Your task to perform on an android device: turn off picture-in-picture Image 0: 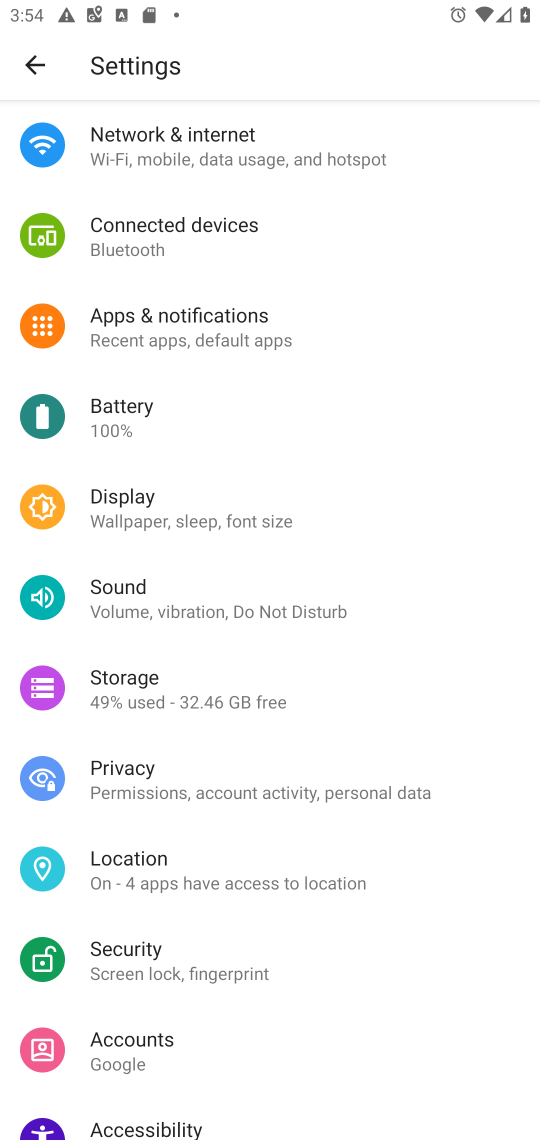
Step 0: click (231, 326)
Your task to perform on an android device: turn off picture-in-picture Image 1: 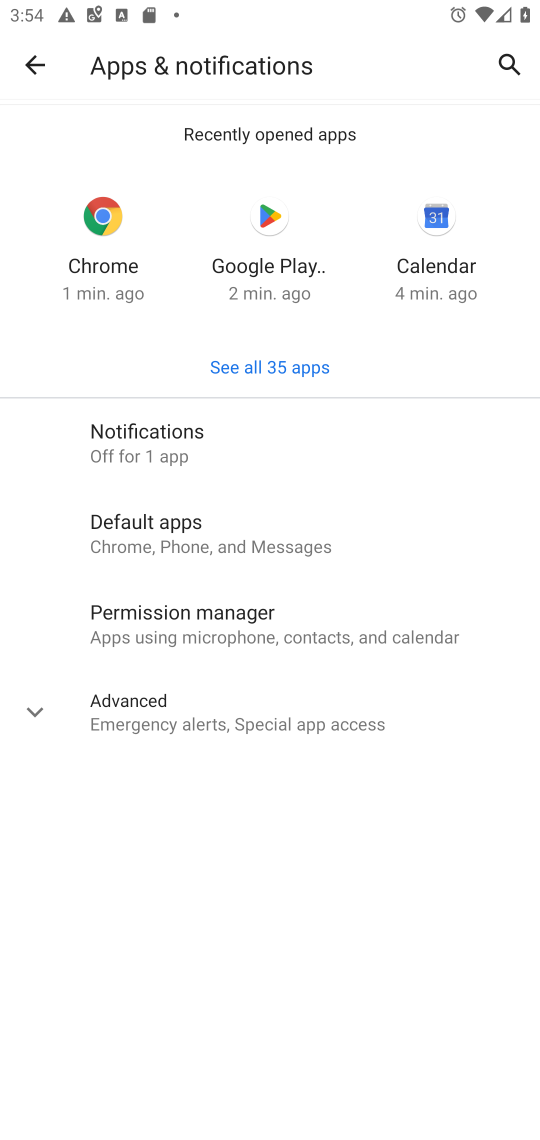
Step 1: click (142, 720)
Your task to perform on an android device: turn off picture-in-picture Image 2: 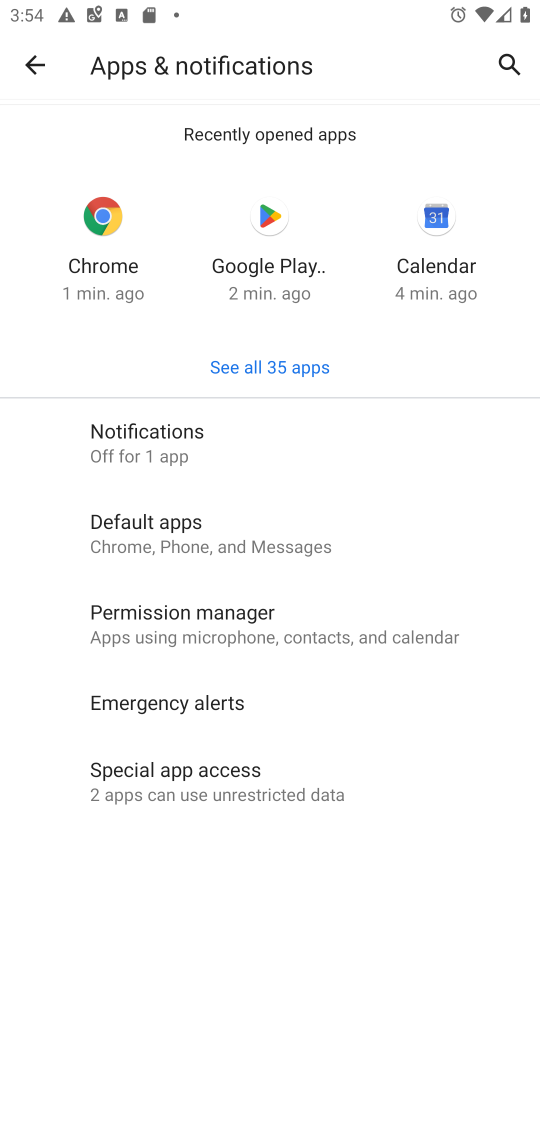
Step 2: click (205, 777)
Your task to perform on an android device: turn off picture-in-picture Image 3: 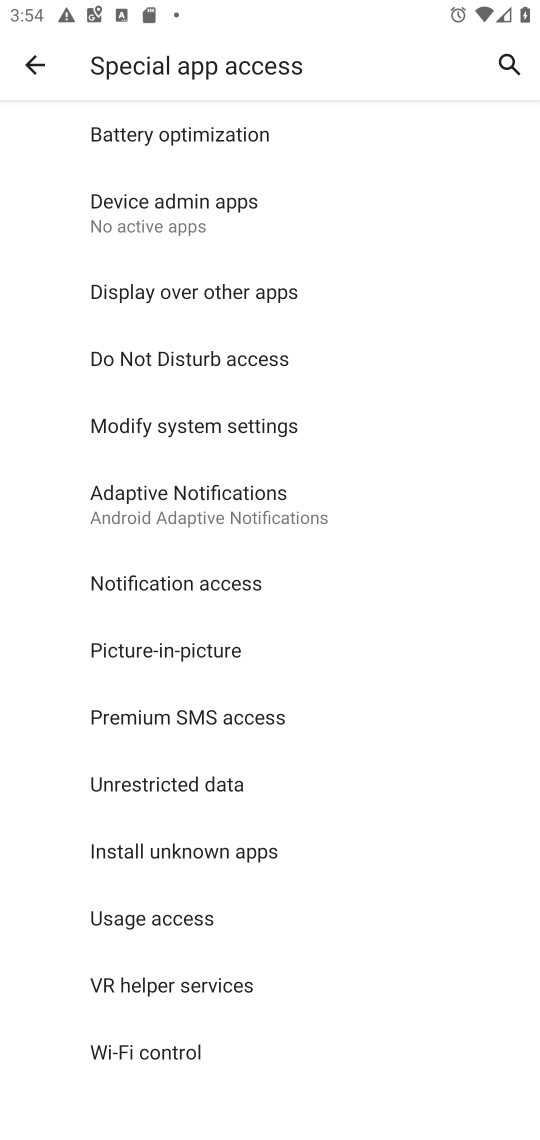
Step 3: click (152, 649)
Your task to perform on an android device: turn off picture-in-picture Image 4: 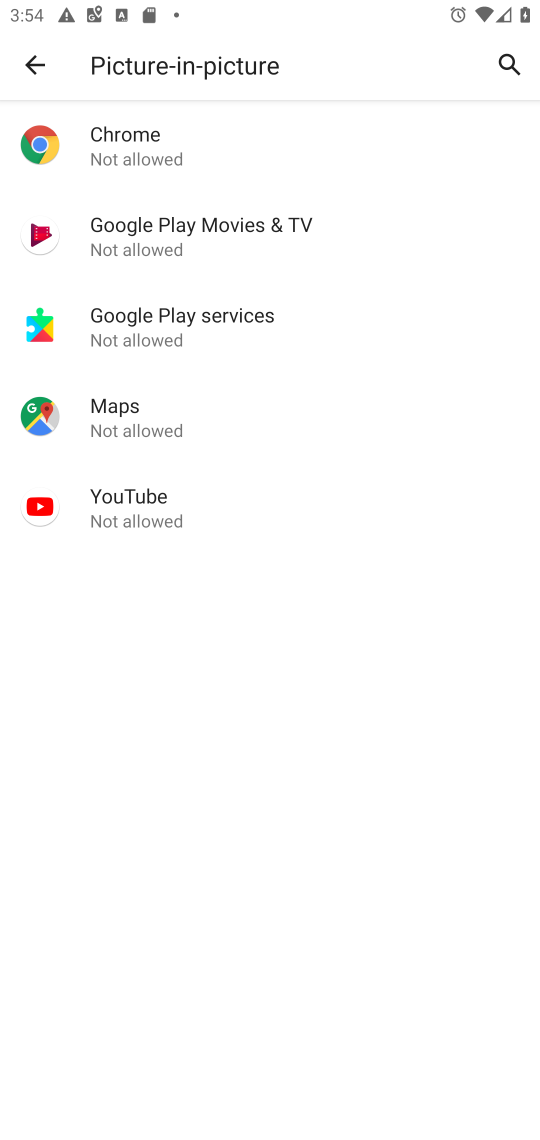
Step 4: task complete